Your task to perform on an android device: Open Google Maps and go to "Timeline" Image 0: 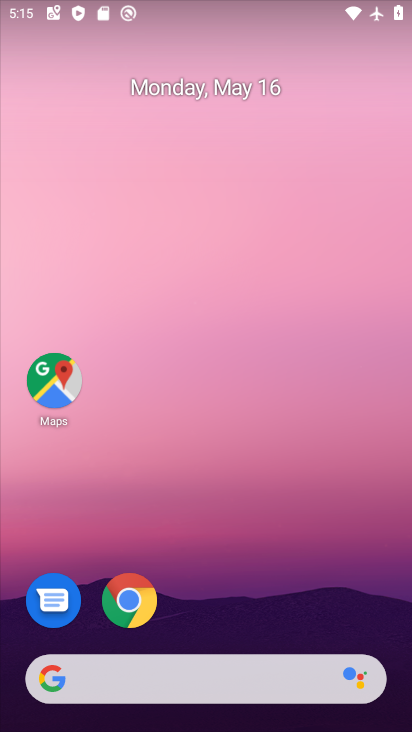
Step 0: drag from (218, 641) to (149, 105)
Your task to perform on an android device: Open Google Maps and go to "Timeline" Image 1: 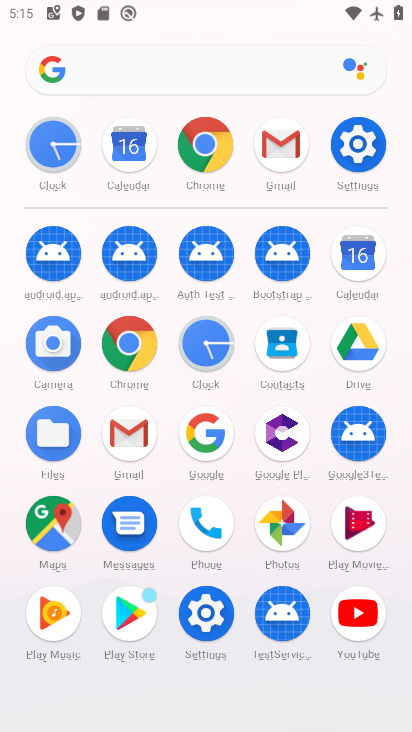
Step 1: click (41, 533)
Your task to perform on an android device: Open Google Maps and go to "Timeline" Image 2: 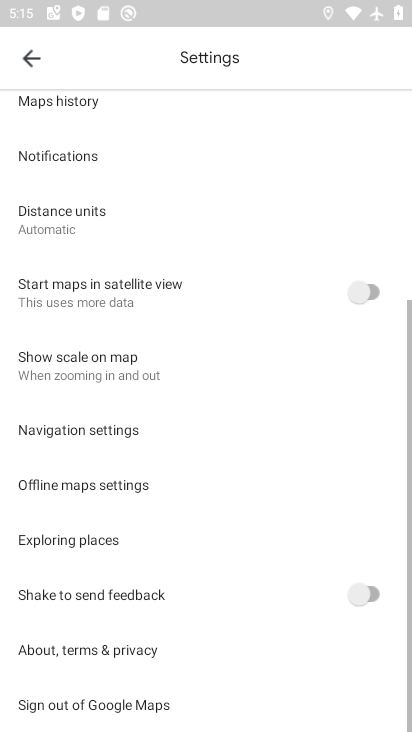
Step 2: click (13, 45)
Your task to perform on an android device: Open Google Maps and go to "Timeline" Image 3: 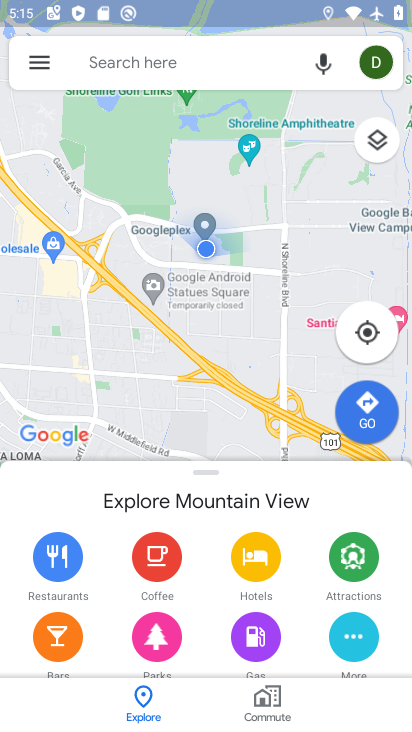
Step 3: click (46, 73)
Your task to perform on an android device: Open Google Maps and go to "Timeline" Image 4: 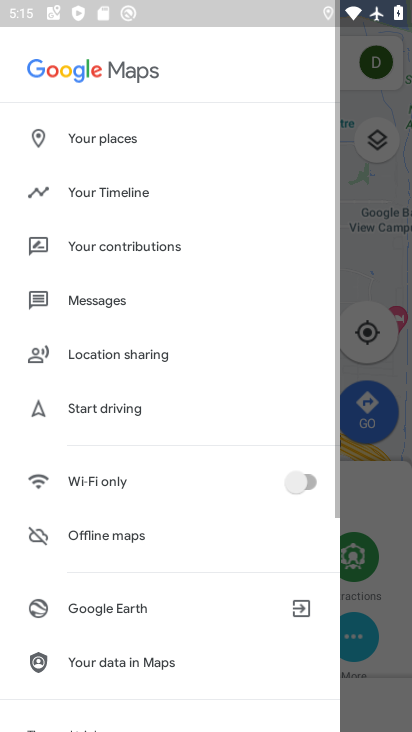
Step 4: click (89, 195)
Your task to perform on an android device: Open Google Maps and go to "Timeline" Image 5: 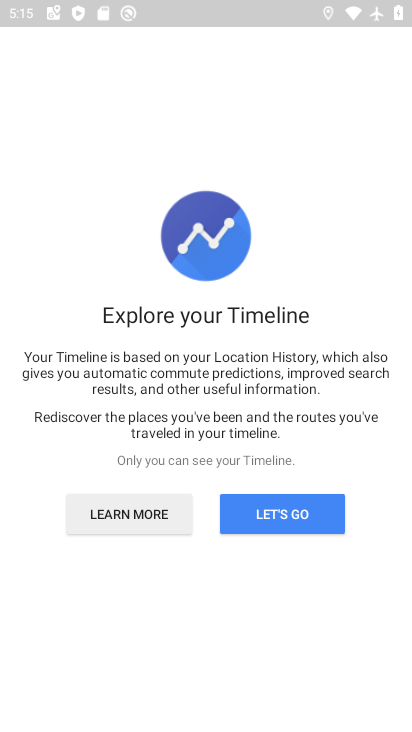
Step 5: task complete